Your task to perform on an android device: Show me productivity apps on the Play Store Image 0: 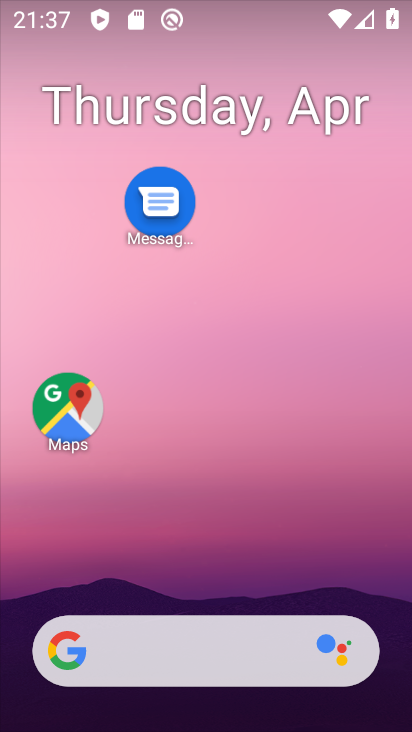
Step 0: drag from (207, 588) to (216, 163)
Your task to perform on an android device: Show me productivity apps on the Play Store Image 1: 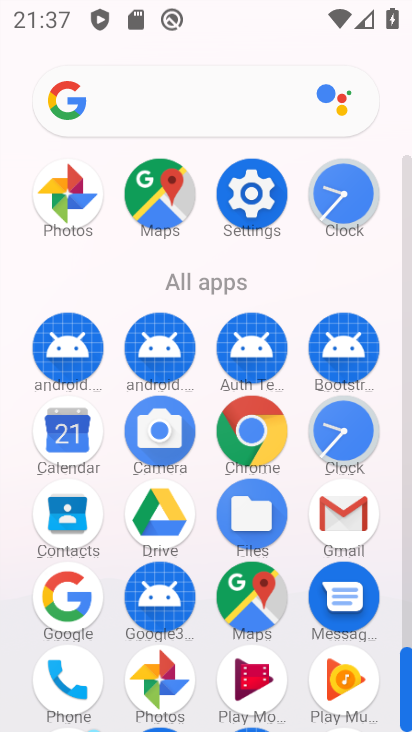
Step 1: drag from (112, 647) to (106, 228)
Your task to perform on an android device: Show me productivity apps on the Play Store Image 2: 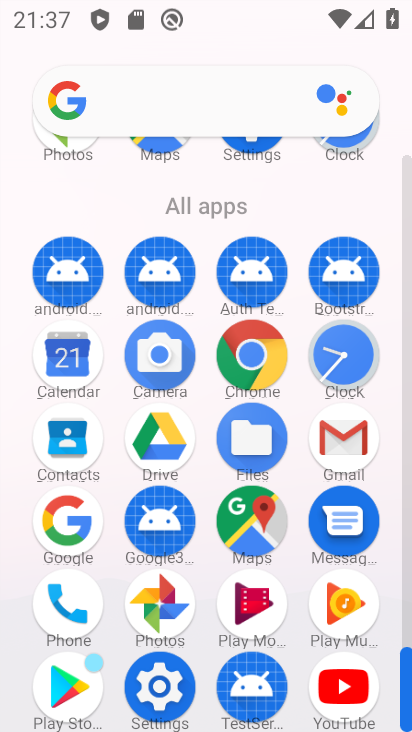
Step 2: click (74, 662)
Your task to perform on an android device: Show me productivity apps on the Play Store Image 3: 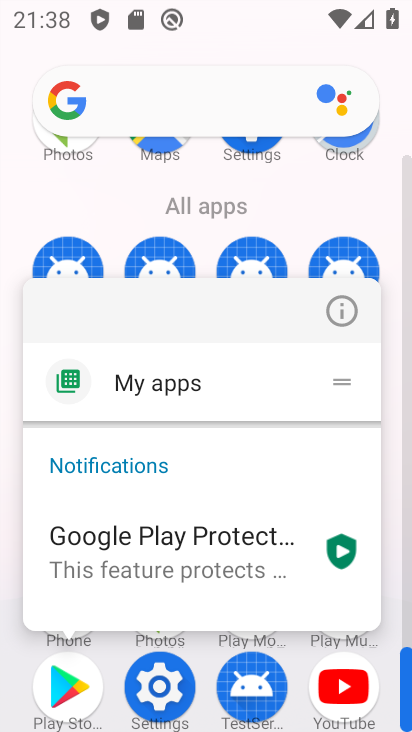
Step 3: click (58, 695)
Your task to perform on an android device: Show me productivity apps on the Play Store Image 4: 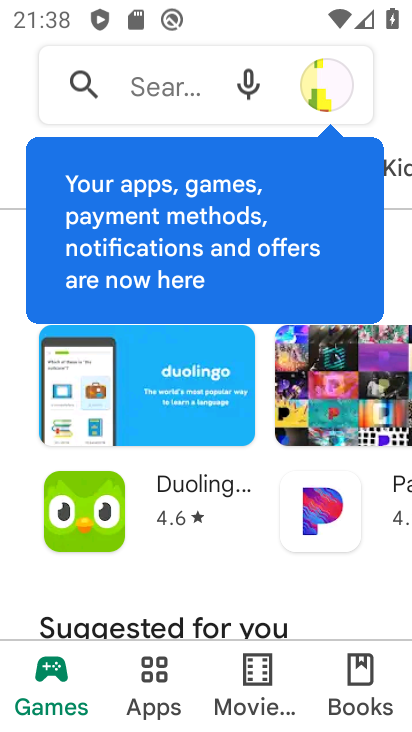
Step 4: click (150, 677)
Your task to perform on an android device: Show me productivity apps on the Play Store Image 5: 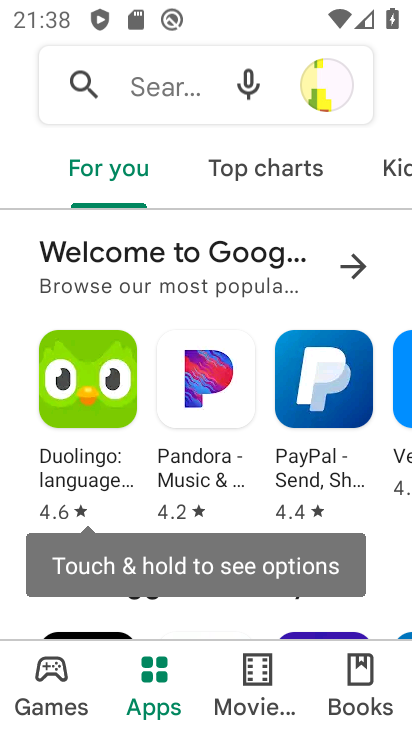
Step 5: drag from (323, 167) to (56, 179)
Your task to perform on an android device: Show me productivity apps on the Play Store Image 6: 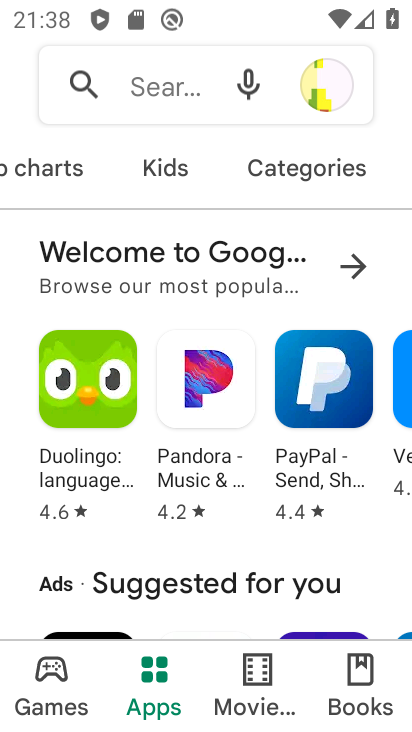
Step 6: click (263, 167)
Your task to perform on an android device: Show me productivity apps on the Play Store Image 7: 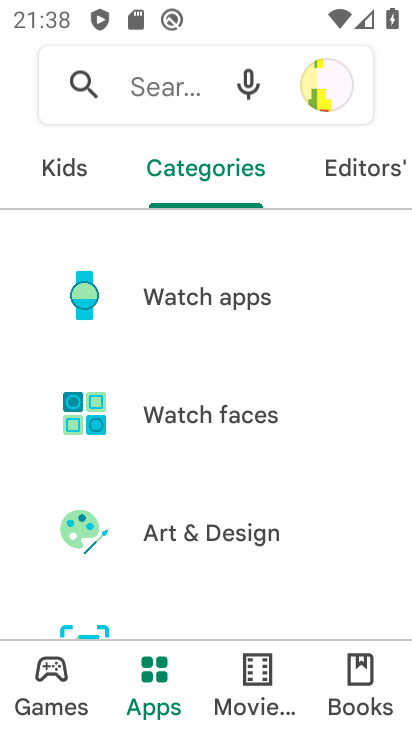
Step 7: drag from (230, 606) to (233, 216)
Your task to perform on an android device: Show me productivity apps on the Play Store Image 8: 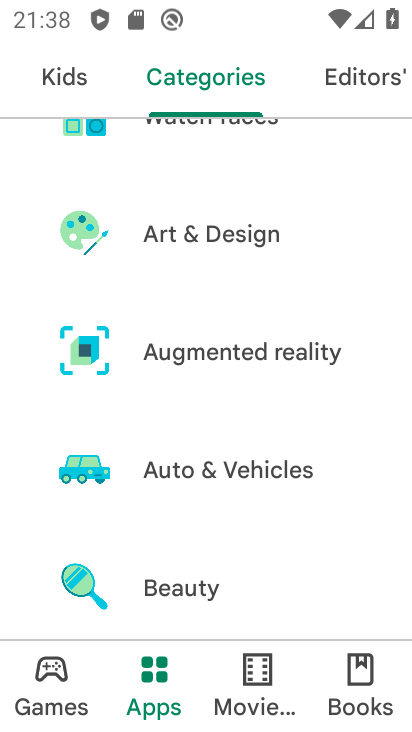
Step 8: drag from (258, 561) to (278, 179)
Your task to perform on an android device: Show me productivity apps on the Play Store Image 9: 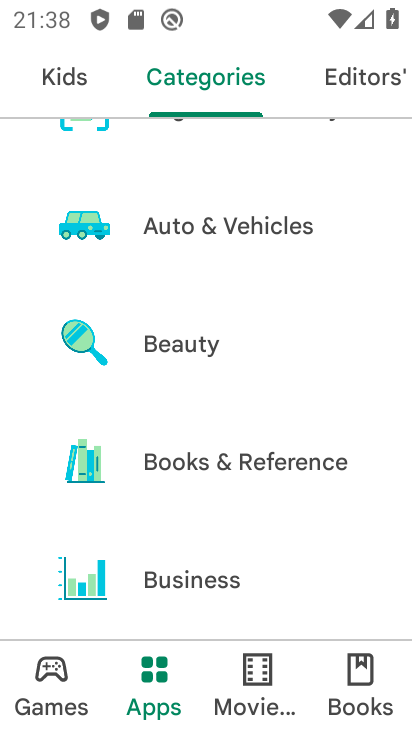
Step 9: drag from (283, 497) to (297, 206)
Your task to perform on an android device: Show me productivity apps on the Play Store Image 10: 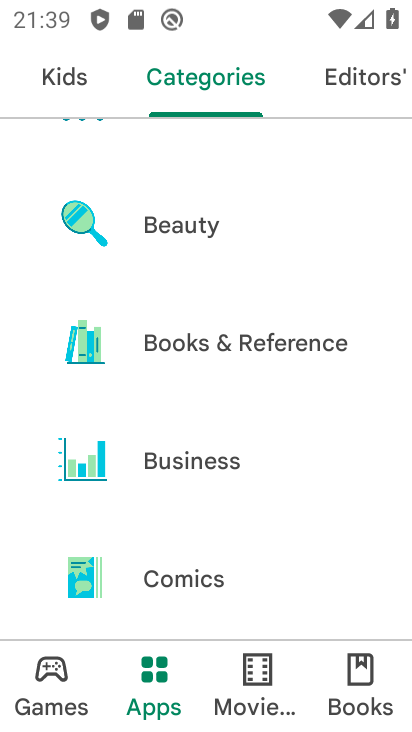
Step 10: drag from (270, 540) to (293, 216)
Your task to perform on an android device: Show me productivity apps on the Play Store Image 11: 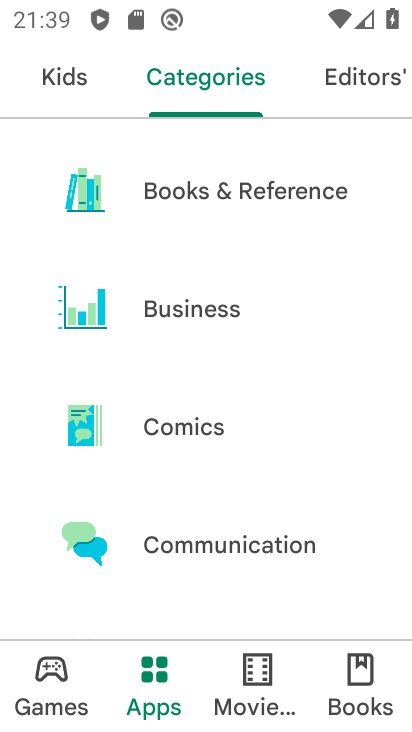
Step 11: drag from (261, 597) to (279, 229)
Your task to perform on an android device: Show me productivity apps on the Play Store Image 12: 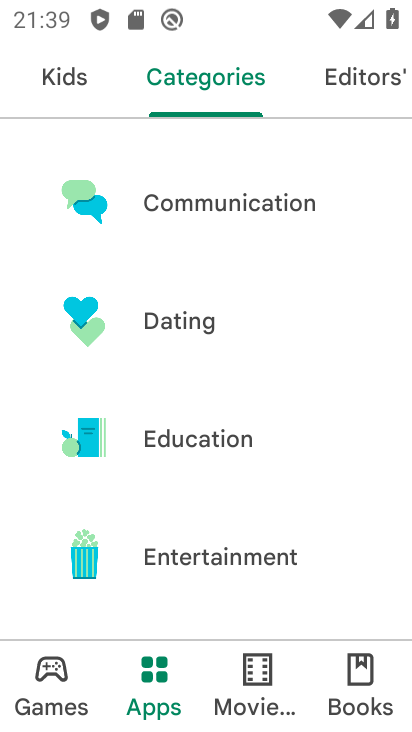
Step 12: drag from (266, 566) to (291, 283)
Your task to perform on an android device: Show me productivity apps on the Play Store Image 13: 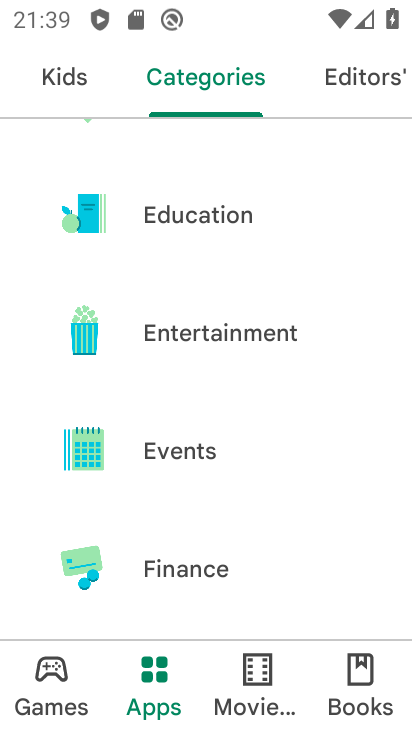
Step 13: drag from (290, 507) to (296, 223)
Your task to perform on an android device: Show me productivity apps on the Play Store Image 14: 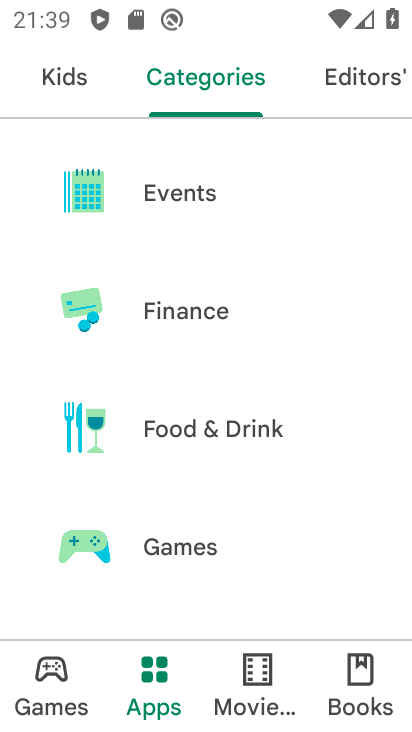
Step 14: drag from (247, 555) to (281, 252)
Your task to perform on an android device: Show me productivity apps on the Play Store Image 15: 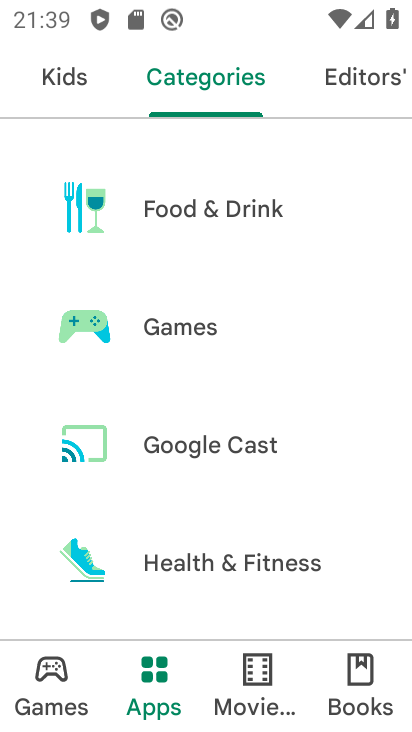
Step 15: drag from (214, 572) to (266, 293)
Your task to perform on an android device: Show me productivity apps on the Play Store Image 16: 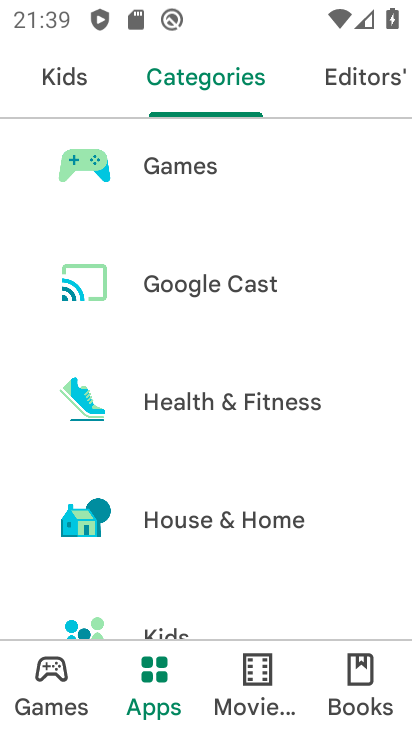
Step 16: drag from (223, 610) to (268, 303)
Your task to perform on an android device: Show me productivity apps on the Play Store Image 17: 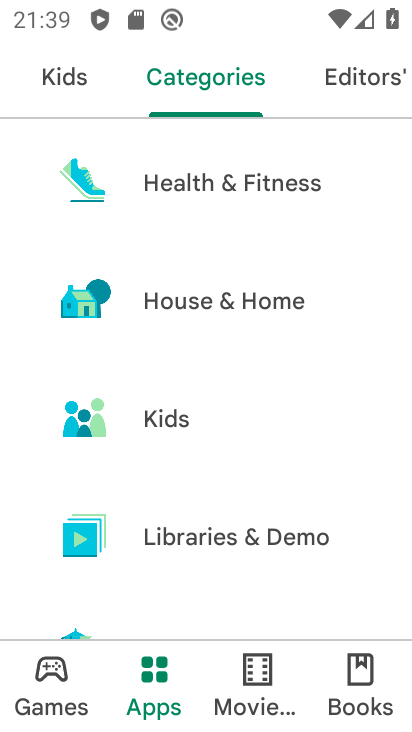
Step 17: drag from (257, 371) to (259, 186)
Your task to perform on an android device: Show me productivity apps on the Play Store Image 18: 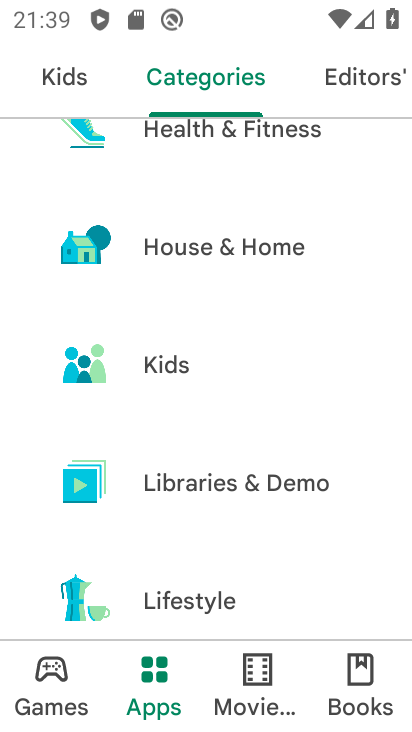
Step 18: drag from (242, 516) to (256, 265)
Your task to perform on an android device: Show me productivity apps on the Play Store Image 19: 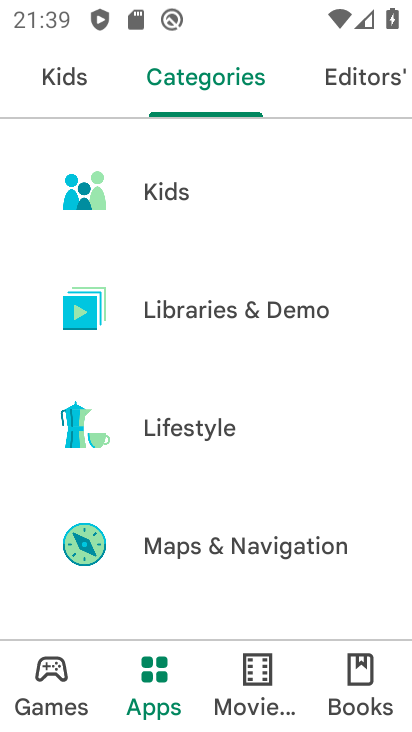
Step 19: drag from (233, 550) to (263, 221)
Your task to perform on an android device: Show me productivity apps on the Play Store Image 20: 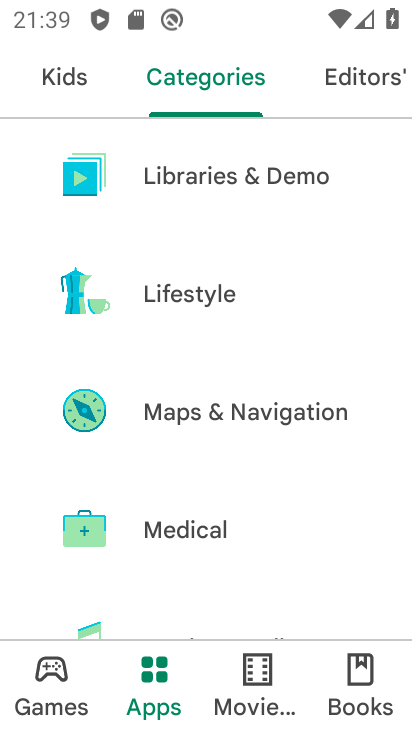
Step 20: drag from (261, 496) to (289, 115)
Your task to perform on an android device: Show me productivity apps on the Play Store Image 21: 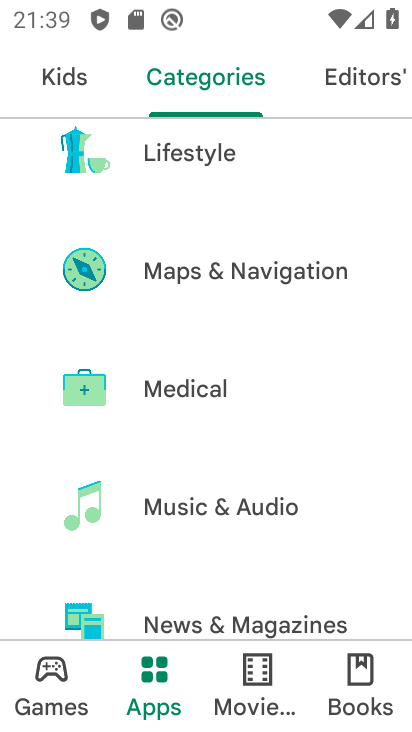
Step 21: drag from (236, 581) to (251, 255)
Your task to perform on an android device: Show me productivity apps on the Play Store Image 22: 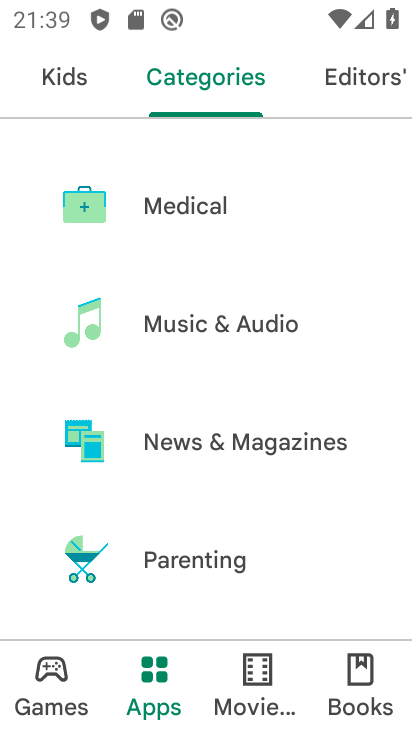
Step 22: drag from (220, 495) to (266, 270)
Your task to perform on an android device: Show me productivity apps on the Play Store Image 23: 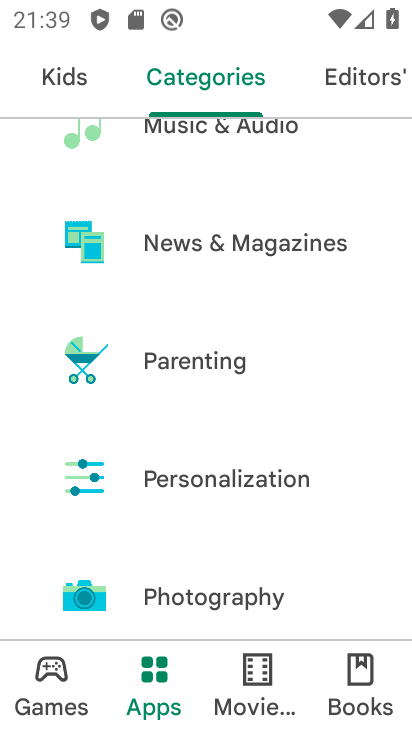
Step 23: drag from (219, 553) to (257, 296)
Your task to perform on an android device: Show me productivity apps on the Play Store Image 24: 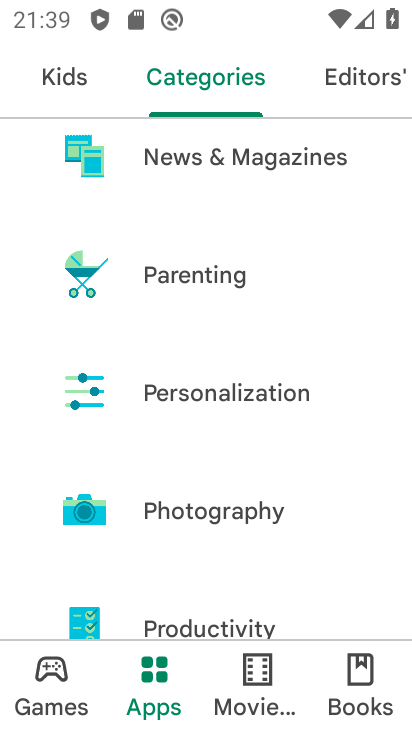
Step 24: click (216, 614)
Your task to perform on an android device: Show me productivity apps on the Play Store Image 25: 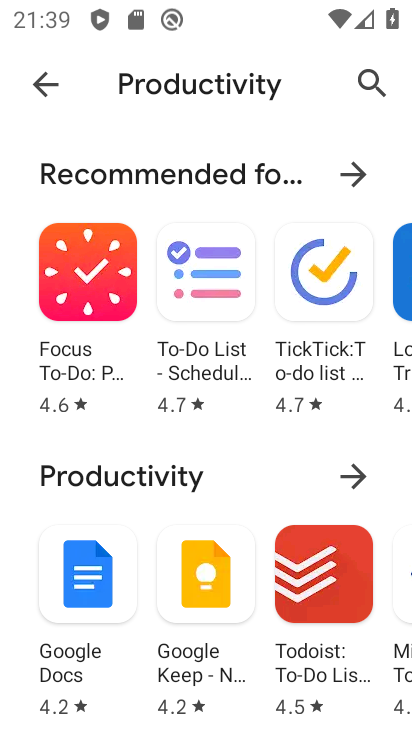
Step 25: task complete